Your task to perform on an android device: find snoozed emails in the gmail app Image 0: 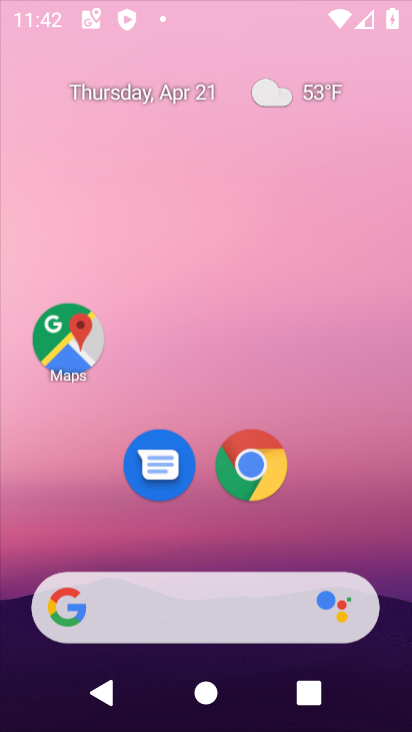
Step 0: click (240, 15)
Your task to perform on an android device: find snoozed emails in the gmail app Image 1: 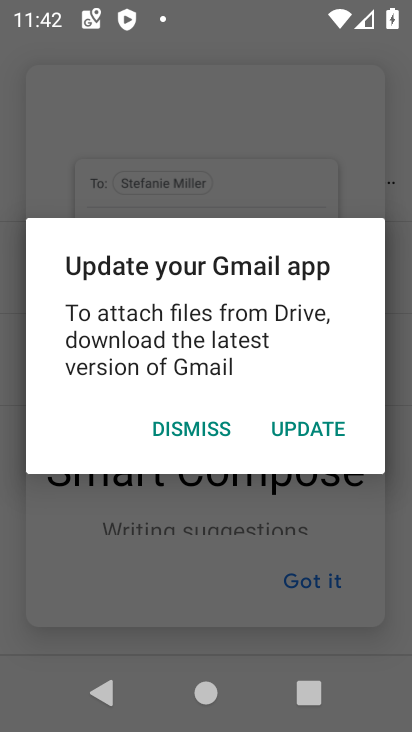
Step 1: press back button
Your task to perform on an android device: find snoozed emails in the gmail app Image 2: 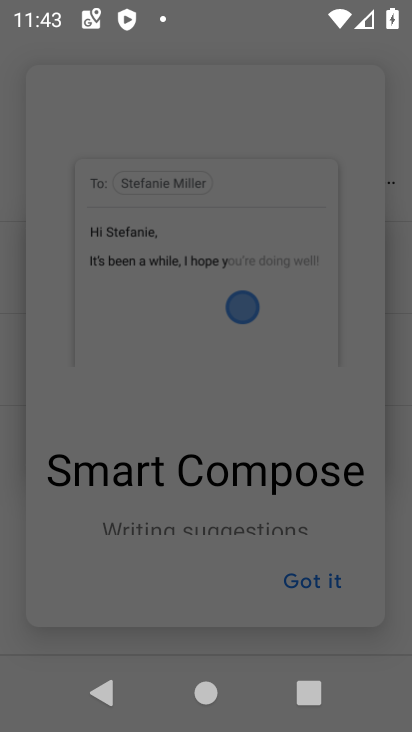
Step 2: press home button
Your task to perform on an android device: find snoozed emails in the gmail app Image 3: 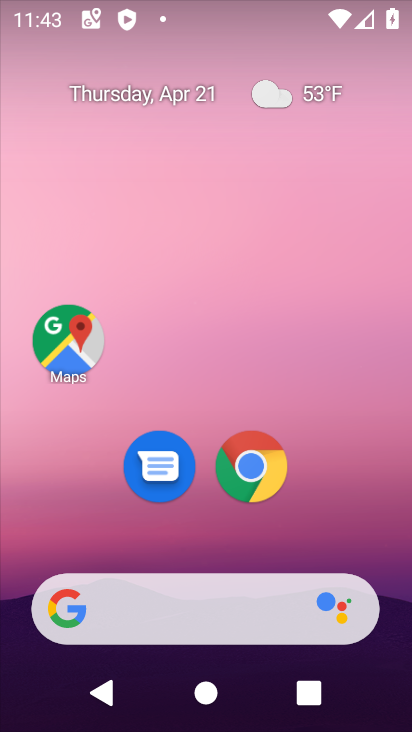
Step 3: drag from (318, 479) to (264, 24)
Your task to perform on an android device: find snoozed emails in the gmail app Image 4: 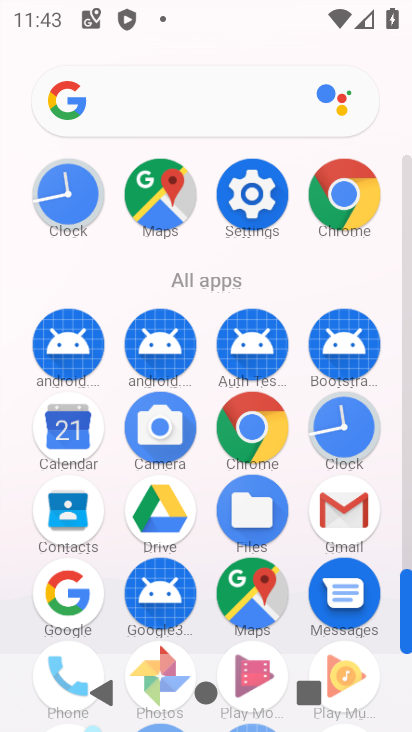
Step 4: click (341, 511)
Your task to perform on an android device: find snoozed emails in the gmail app Image 5: 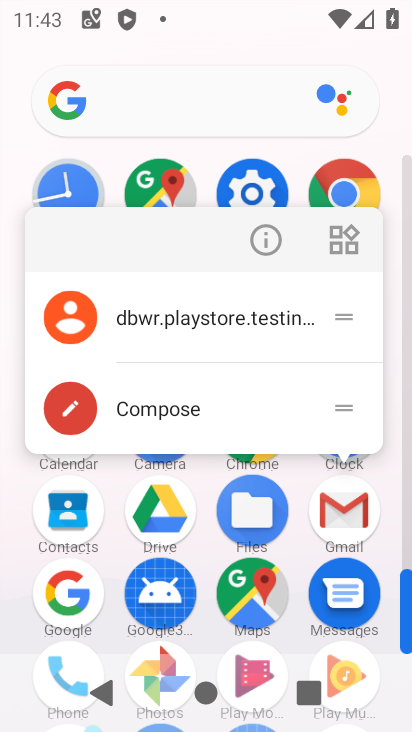
Step 5: click (341, 511)
Your task to perform on an android device: find snoozed emails in the gmail app Image 6: 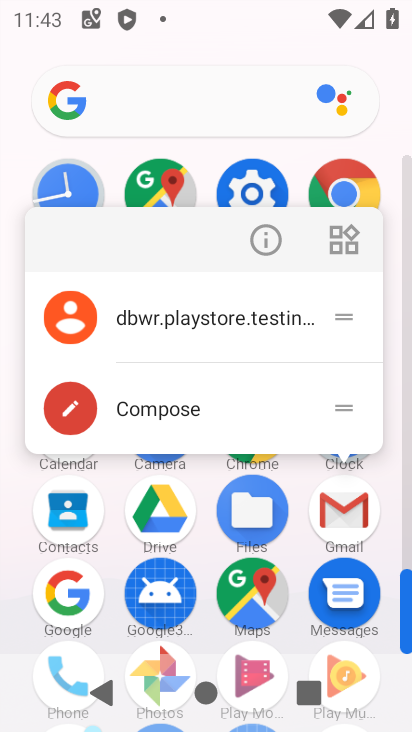
Step 6: click (341, 511)
Your task to perform on an android device: find snoozed emails in the gmail app Image 7: 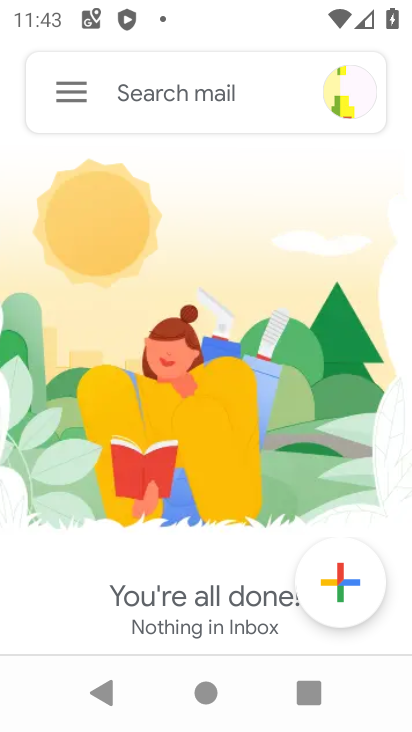
Step 7: click (64, 86)
Your task to perform on an android device: find snoozed emails in the gmail app Image 8: 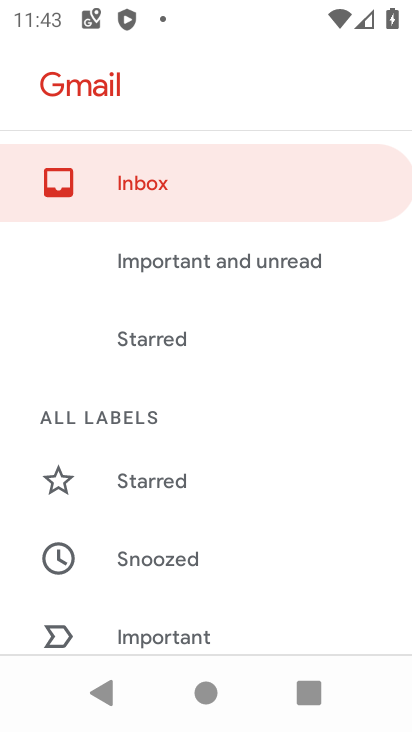
Step 8: drag from (242, 515) to (250, 179)
Your task to perform on an android device: find snoozed emails in the gmail app Image 9: 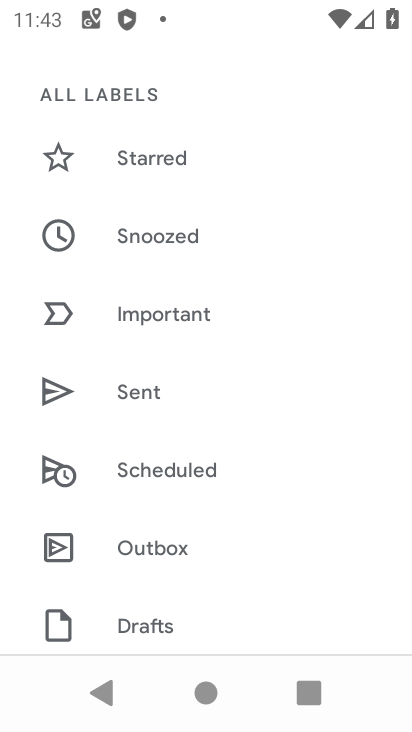
Step 9: drag from (219, 550) to (223, 326)
Your task to perform on an android device: find snoozed emails in the gmail app Image 10: 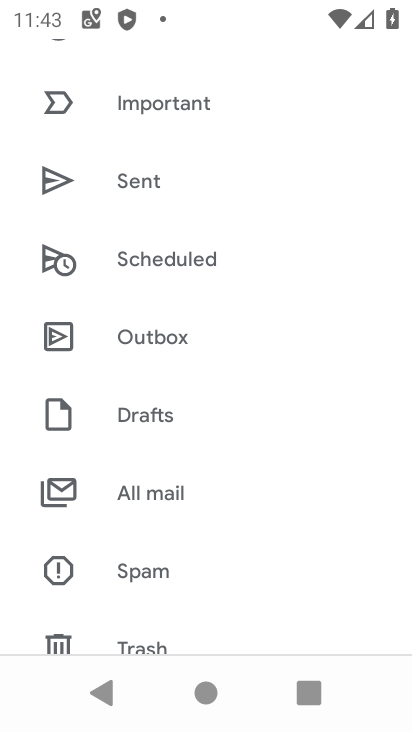
Step 10: drag from (214, 152) to (231, 419)
Your task to perform on an android device: find snoozed emails in the gmail app Image 11: 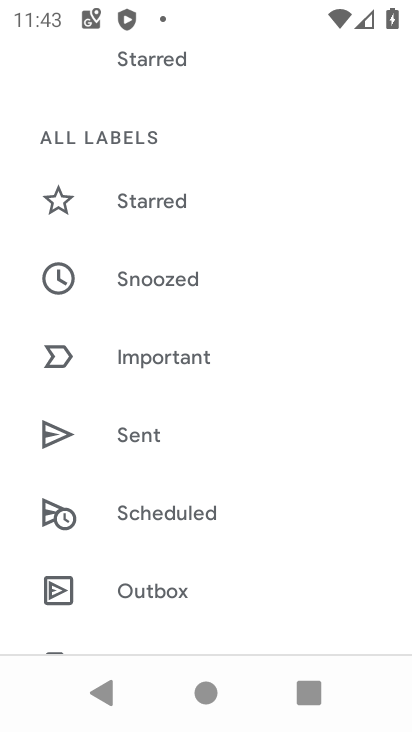
Step 11: click (177, 278)
Your task to perform on an android device: find snoozed emails in the gmail app Image 12: 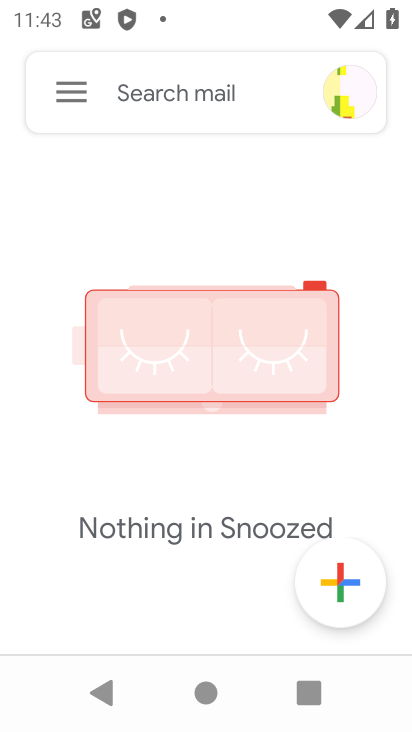
Step 12: task complete